Your task to perform on an android device: check out phone information Image 0: 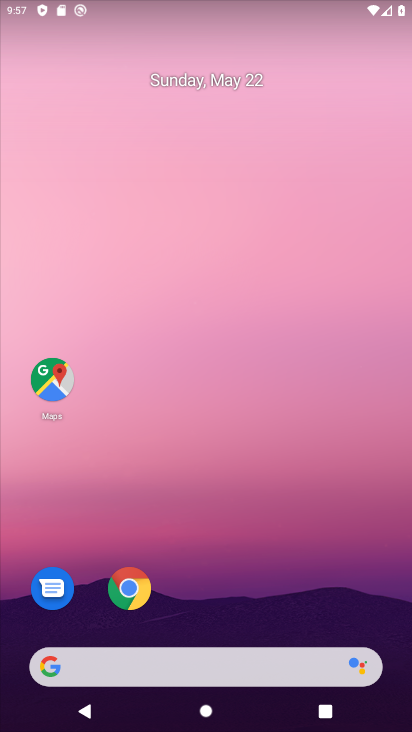
Step 0: drag from (226, 723) to (226, 50)
Your task to perform on an android device: check out phone information Image 1: 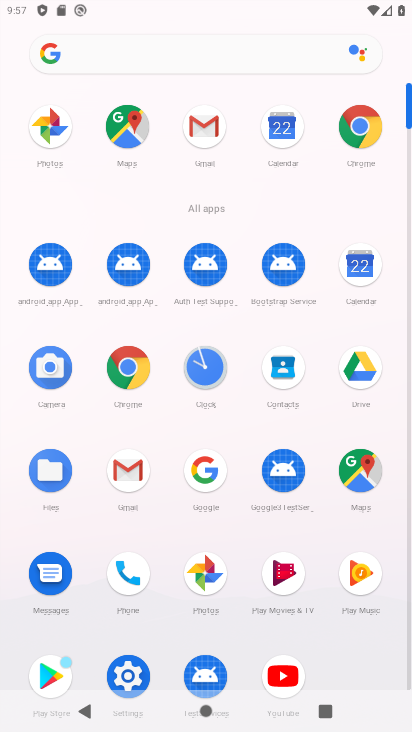
Step 1: click (123, 666)
Your task to perform on an android device: check out phone information Image 2: 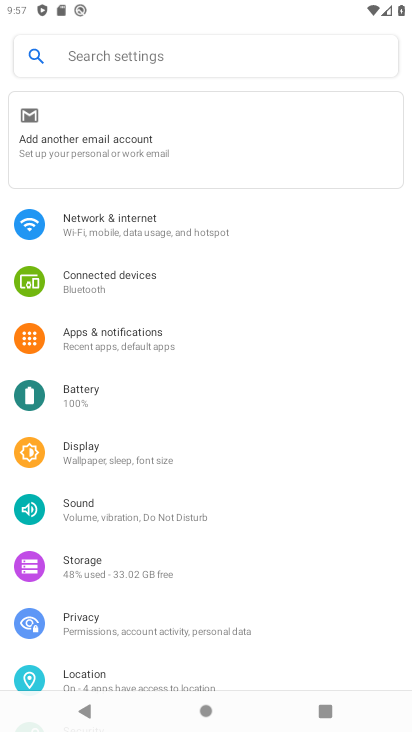
Step 2: drag from (142, 671) to (157, 89)
Your task to perform on an android device: check out phone information Image 3: 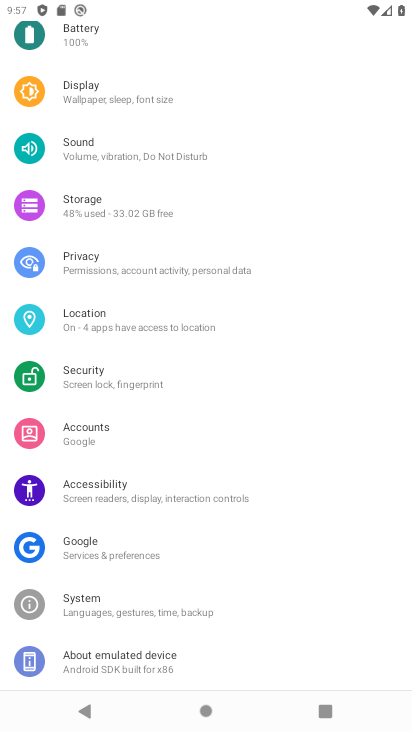
Step 3: drag from (152, 619) to (161, 164)
Your task to perform on an android device: check out phone information Image 4: 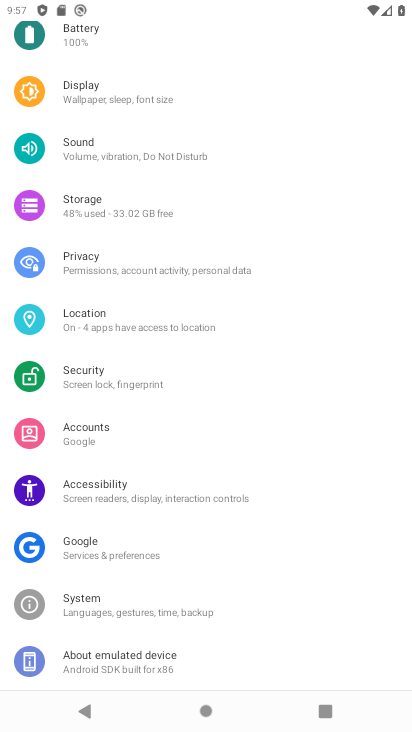
Step 4: click (133, 658)
Your task to perform on an android device: check out phone information Image 5: 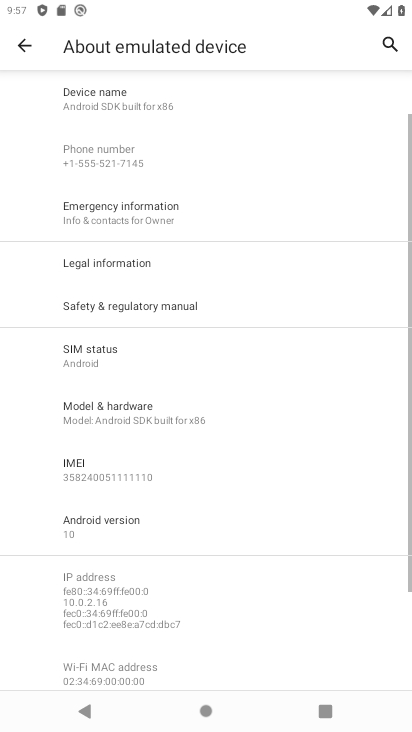
Step 5: task complete